Your task to perform on an android device: change the clock style Image 0: 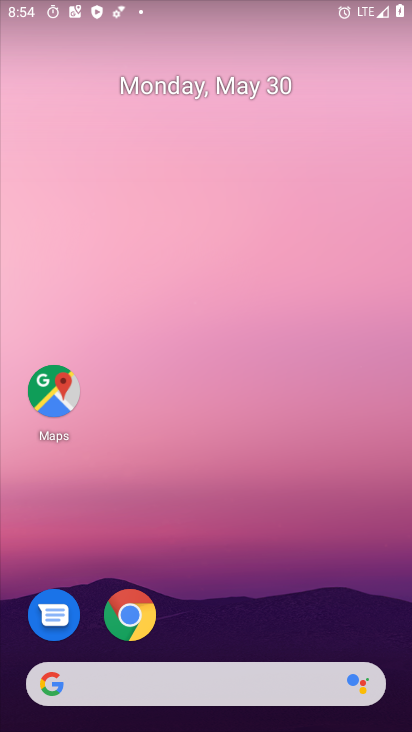
Step 0: drag from (357, 574) to (228, 145)
Your task to perform on an android device: change the clock style Image 1: 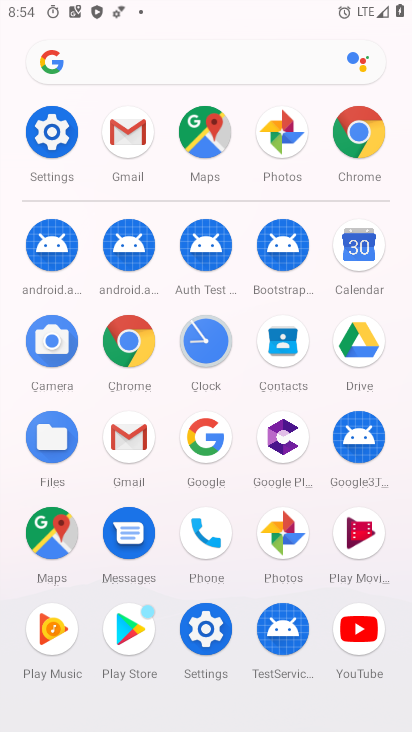
Step 1: click (205, 357)
Your task to perform on an android device: change the clock style Image 2: 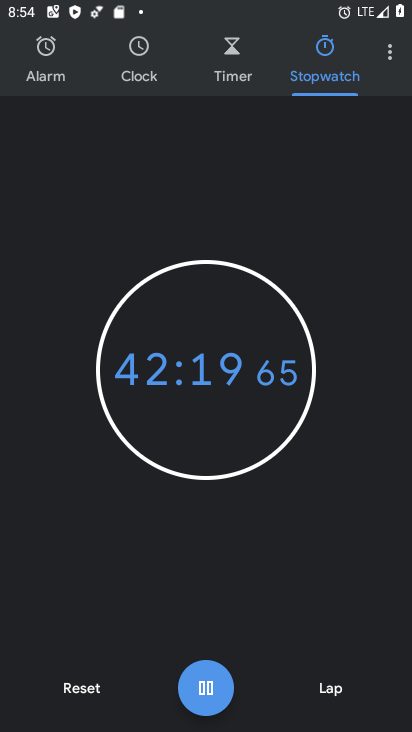
Step 2: click (398, 59)
Your task to perform on an android device: change the clock style Image 3: 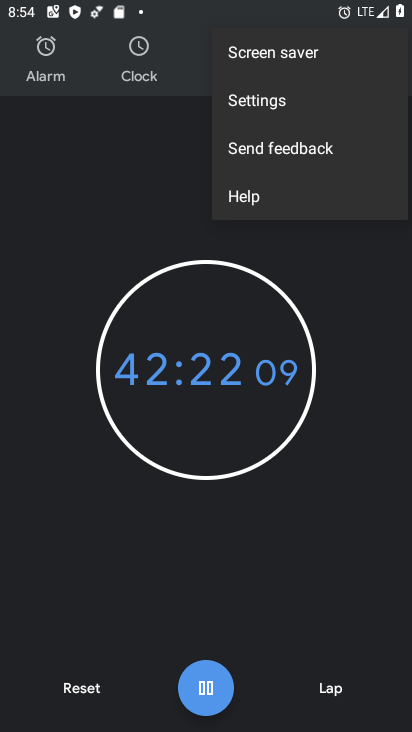
Step 3: click (253, 112)
Your task to perform on an android device: change the clock style Image 4: 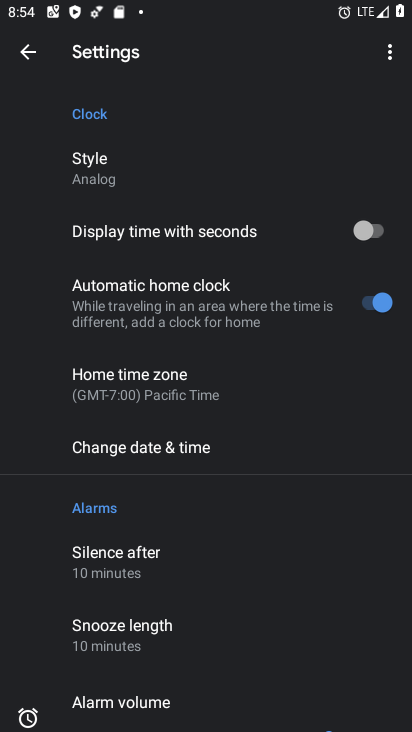
Step 4: click (114, 175)
Your task to perform on an android device: change the clock style Image 5: 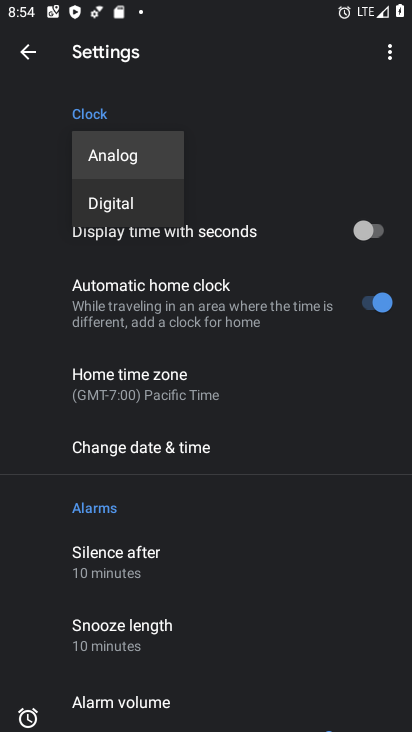
Step 5: click (111, 201)
Your task to perform on an android device: change the clock style Image 6: 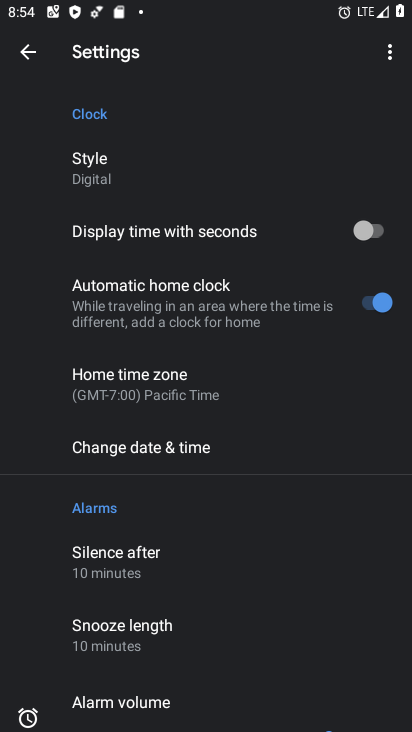
Step 6: task complete